Your task to perform on an android device: Open calendar and show me the fourth week of next month Image 0: 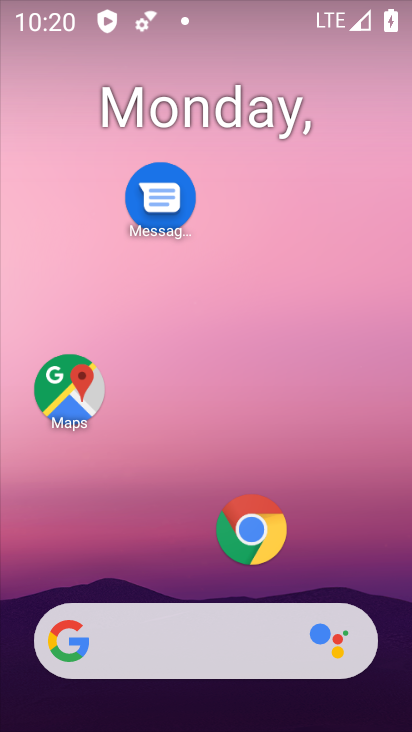
Step 0: drag from (145, 564) to (172, 194)
Your task to perform on an android device: Open calendar and show me the fourth week of next month Image 1: 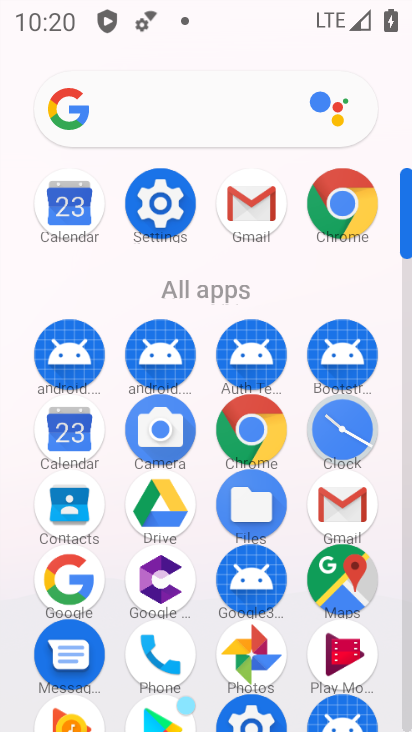
Step 1: click (84, 443)
Your task to perform on an android device: Open calendar and show me the fourth week of next month Image 2: 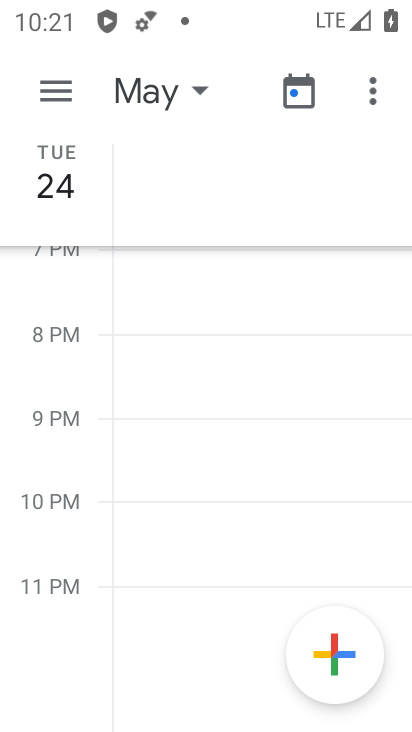
Step 2: click (199, 107)
Your task to perform on an android device: Open calendar and show me the fourth week of next month Image 3: 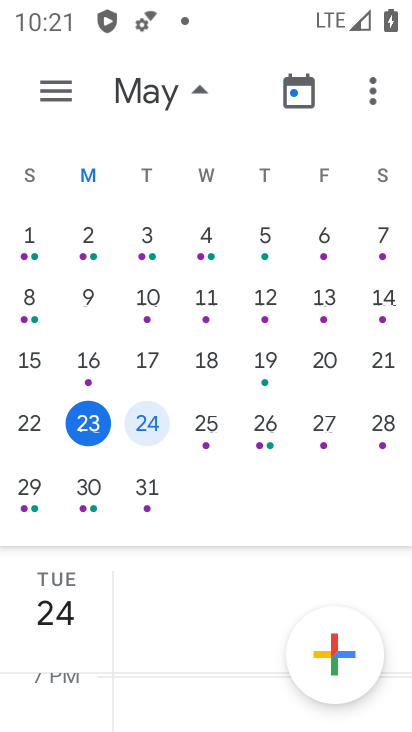
Step 3: drag from (304, 319) to (0, 345)
Your task to perform on an android device: Open calendar and show me the fourth week of next month Image 4: 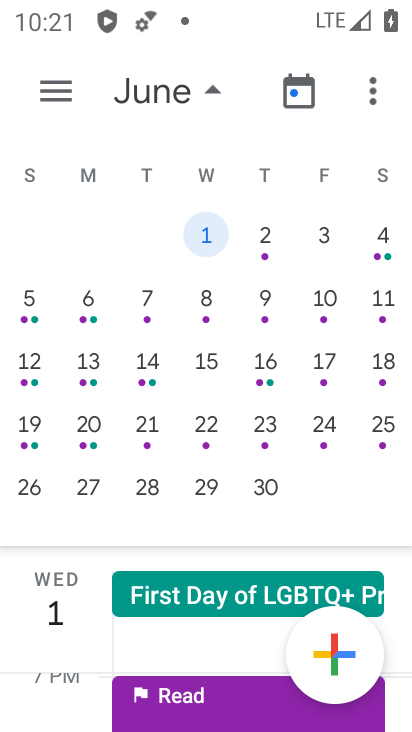
Step 4: click (26, 426)
Your task to perform on an android device: Open calendar and show me the fourth week of next month Image 5: 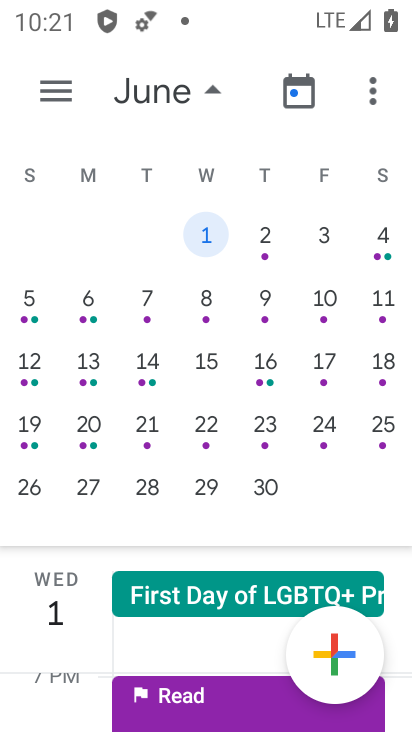
Step 5: click (32, 431)
Your task to perform on an android device: Open calendar and show me the fourth week of next month Image 6: 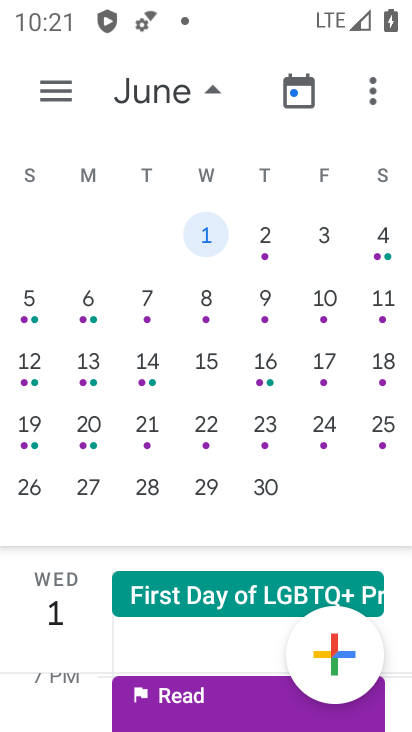
Step 6: click (31, 430)
Your task to perform on an android device: Open calendar and show me the fourth week of next month Image 7: 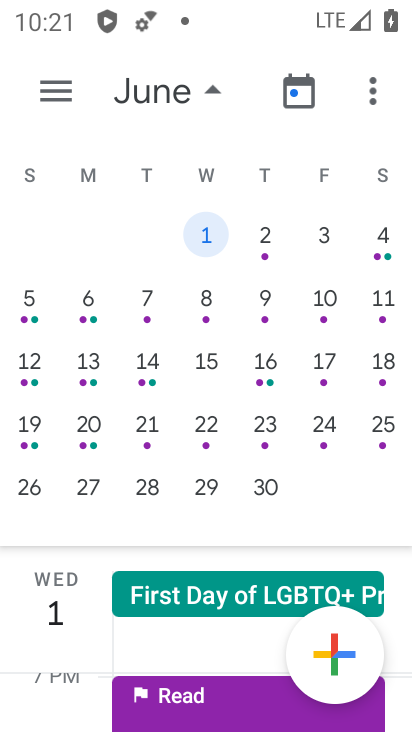
Step 7: click (29, 429)
Your task to perform on an android device: Open calendar and show me the fourth week of next month Image 8: 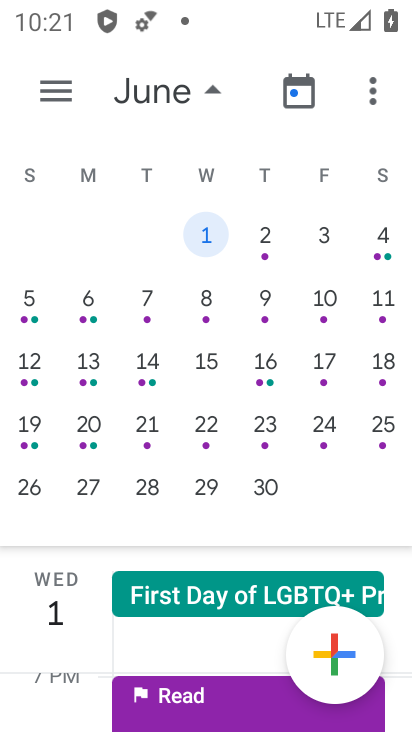
Step 8: click (37, 428)
Your task to perform on an android device: Open calendar and show me the fourth week of next month Image 9: 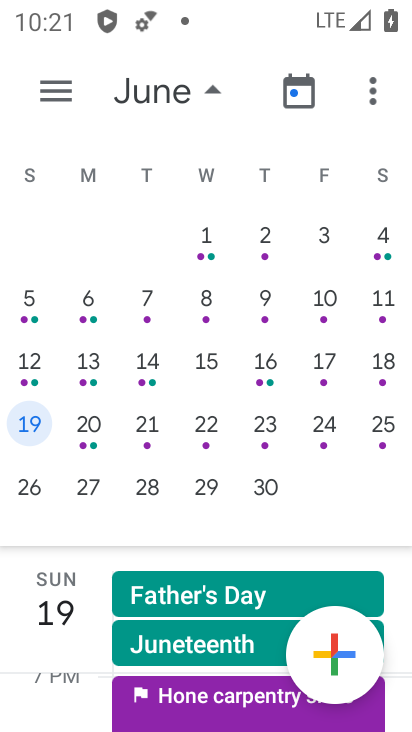
Step 9: click (190, 101)
Your task to perform on an android device: Open calendar and show me the fourth week of next month Image 10: 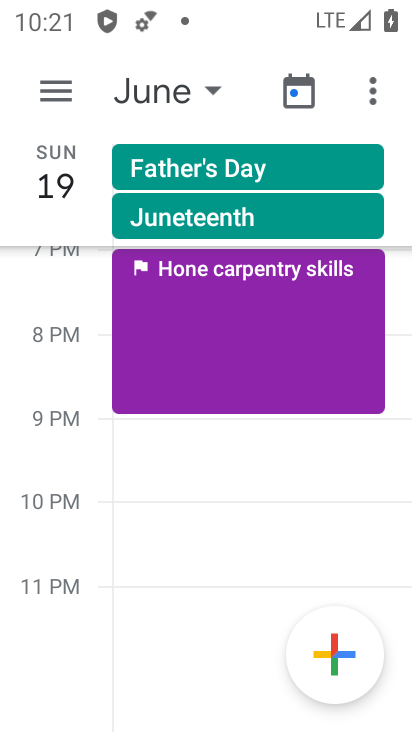
Step 10: click (45, 103)
Your task to perform on an android device: Open calendar and show me the fourth week of next month Image 11: 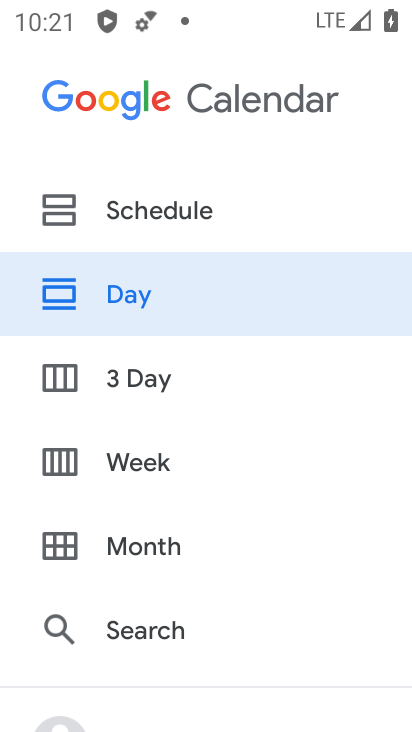
Step 11: click (132, 474)
Your task to perform on an android device: Open calendar and show me the fourth week of next month Image 12: 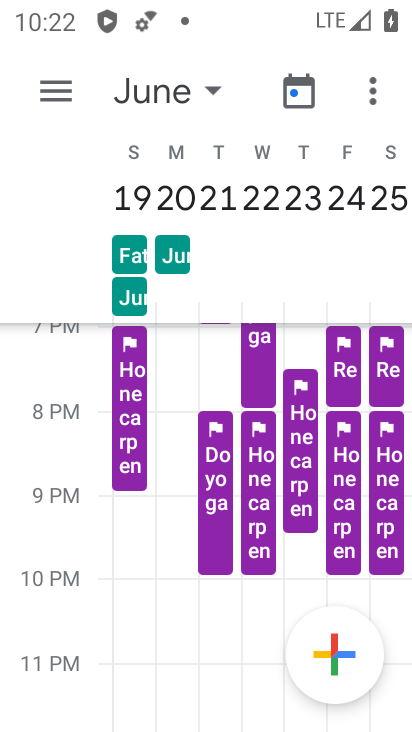
Step 12: task complete